Your task to perform on an android device: turn on notifications settings in the gmail app Image 0: 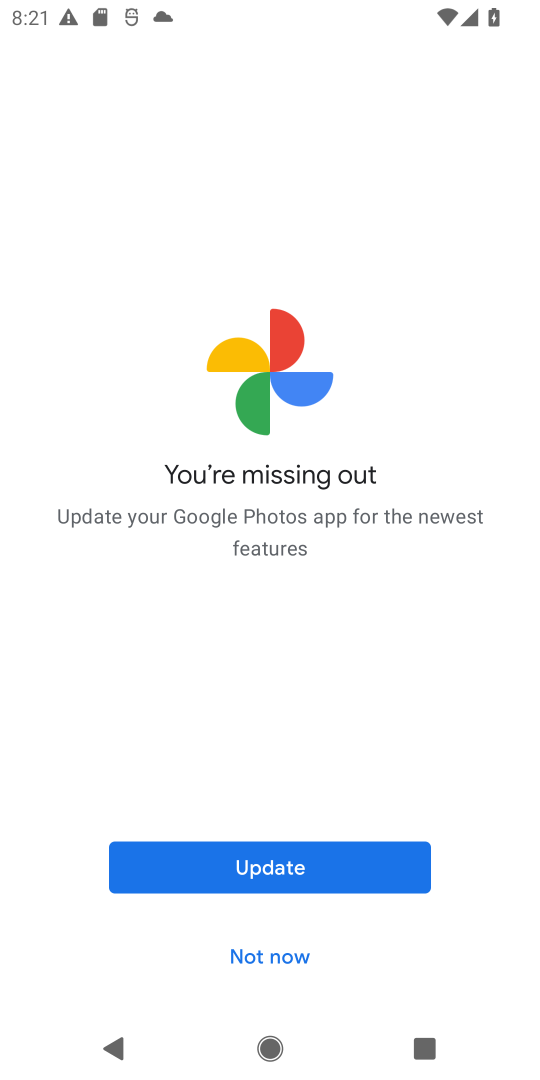
Step 0: press home button
Your task to perform on an android device: turn on notifications settings in the gmail app Image 1: 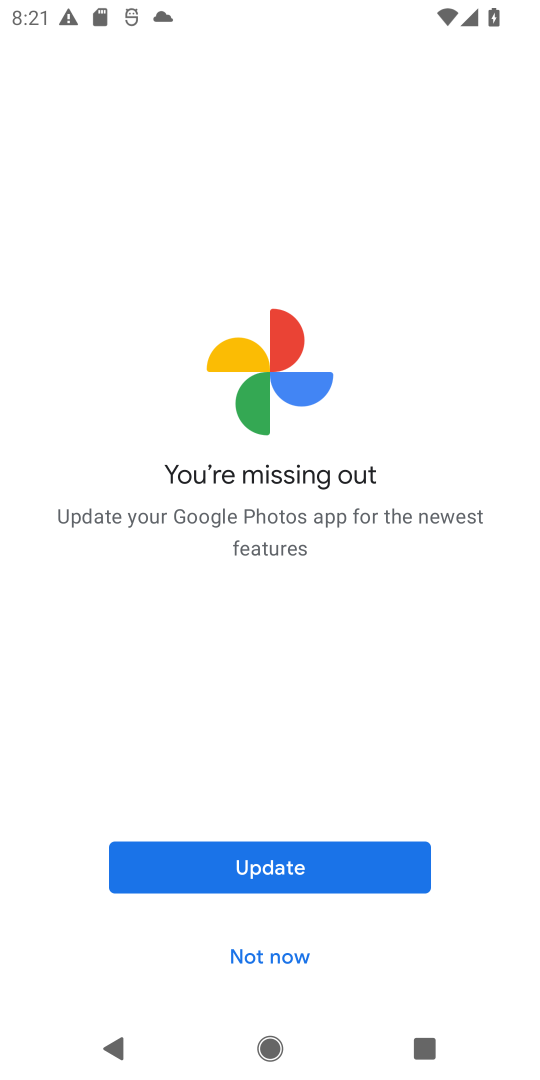
Step 1: press home button
Your task to perform on an android device: turn on notifications settings in the gmail app Image 2: 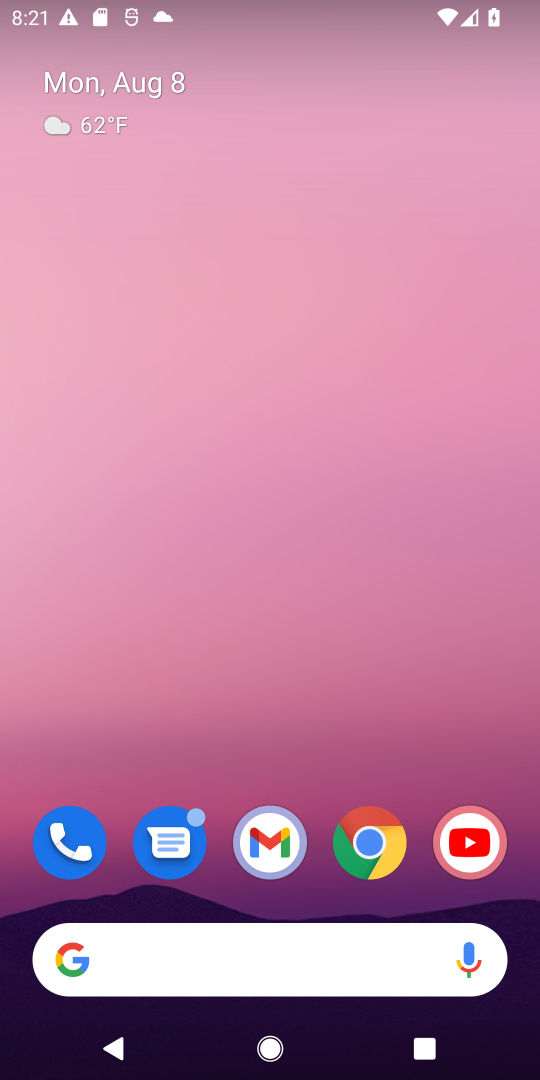
Step 2: click (271, 830)
Your task to perform on an android device: turn on notifications settings in the gmail app Image 3: 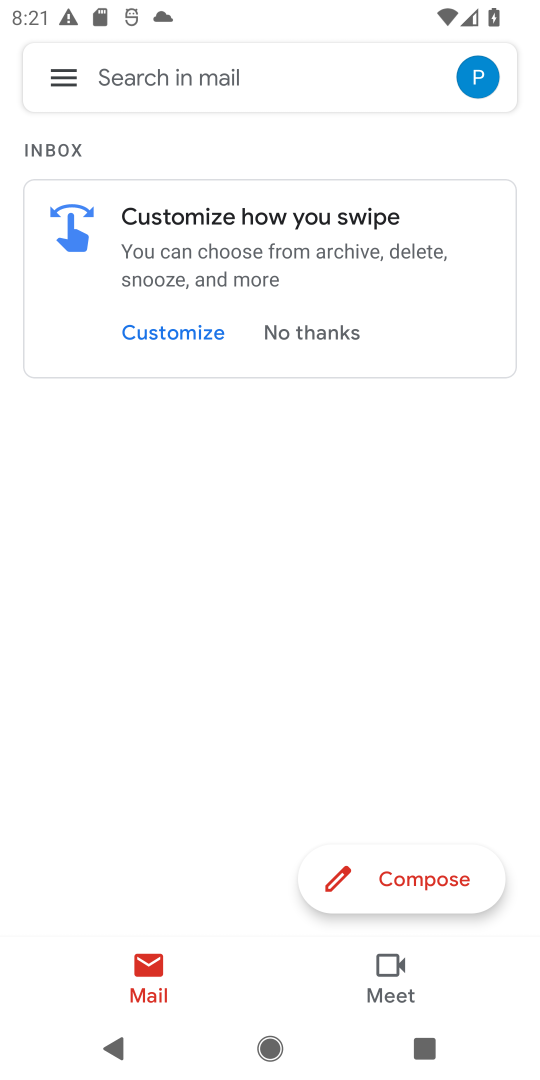
Step 3: click (72, 70)
Your task to perform on an android device: turn on notifications settings in the gmail app Image 4: 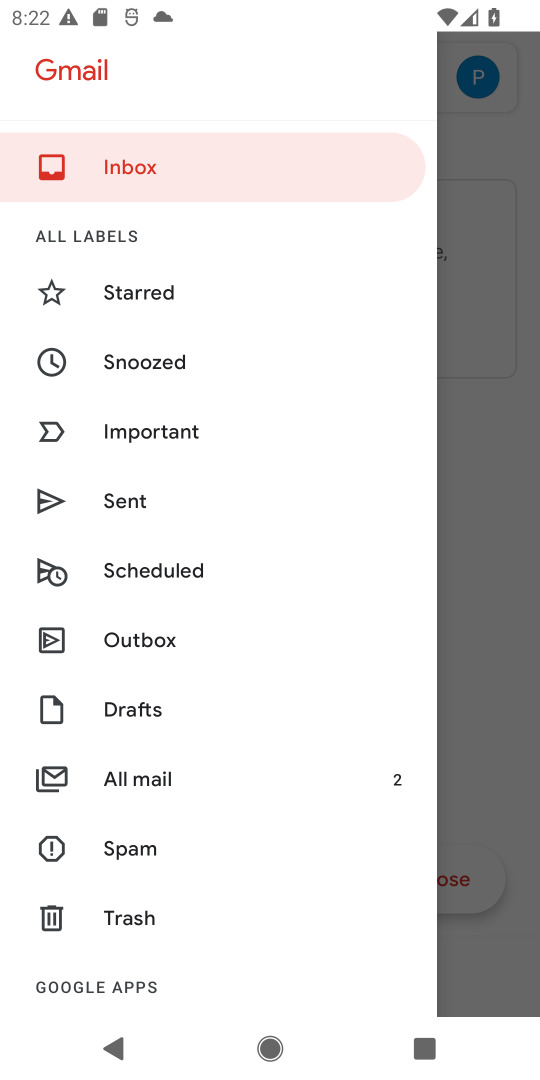
Step 4: drag from (297, 839) to (310, 262)
Your task to perform on an android device: turn on notifications settings in the gmail app Image 5: 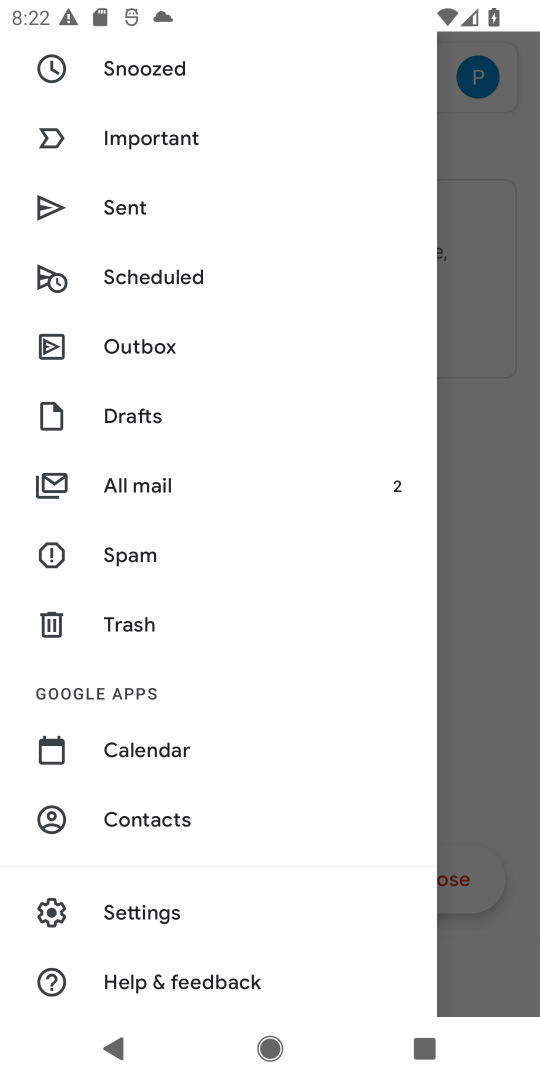
Step 5: click (177, 913)
Your task to perform on an android device: turn on notifications settings in the gmail app Image 6: 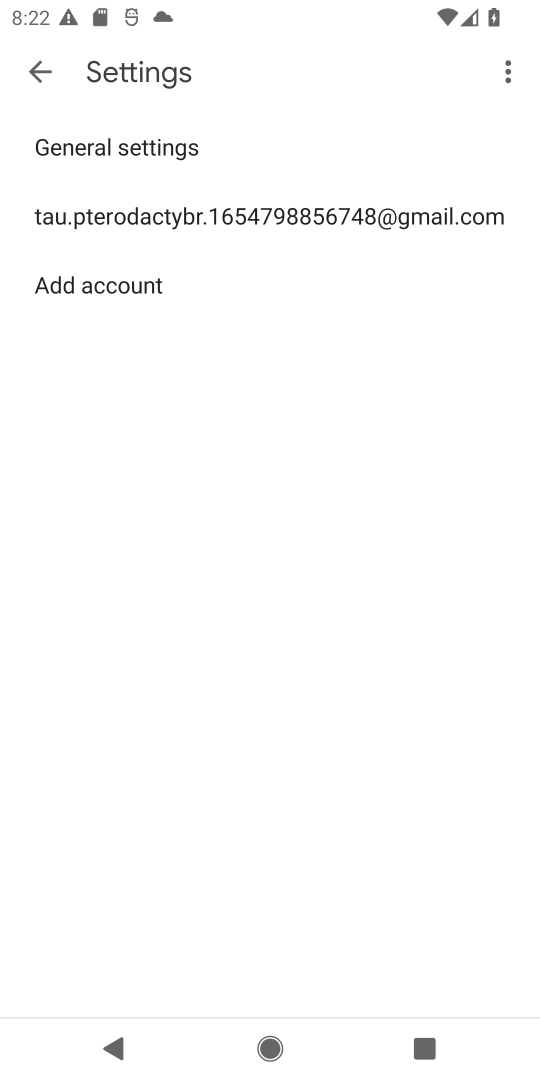
Step 6: click (282, 215)
Your task to perform on an android device: turn on notifications settings in the gmail app Image 7: 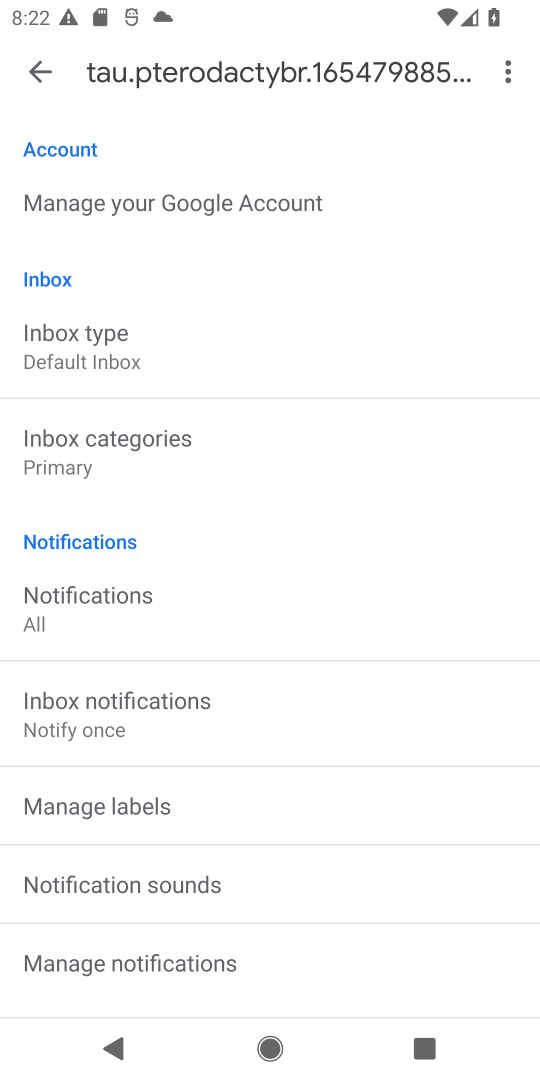
Step 7: click (158, 947)
Your task to perform on an android device: turn on notifications settings in the gmail app Image 8: 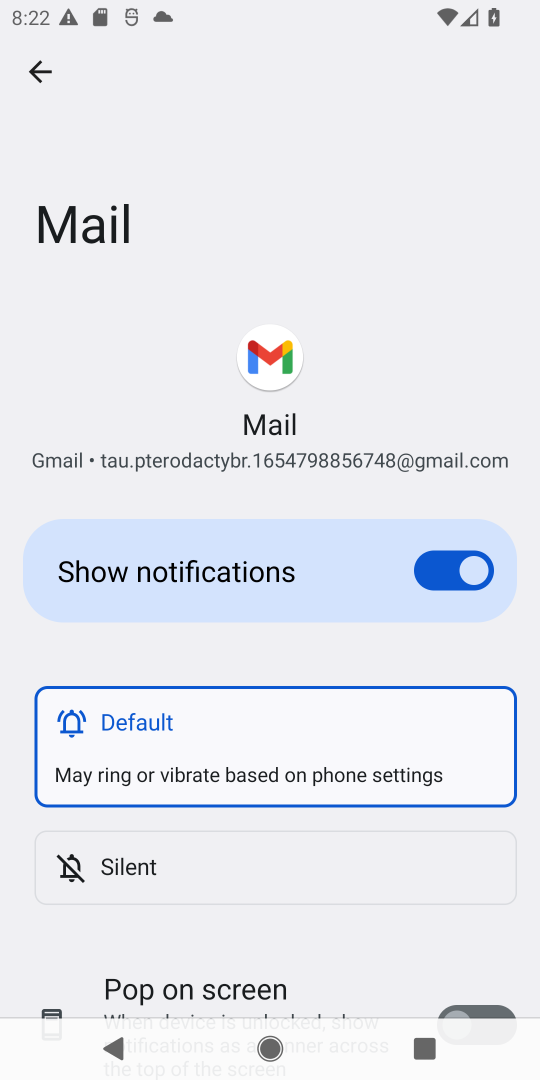
Step 8: task complete